Your task to perform on an android device: Open my contact list Image 0: 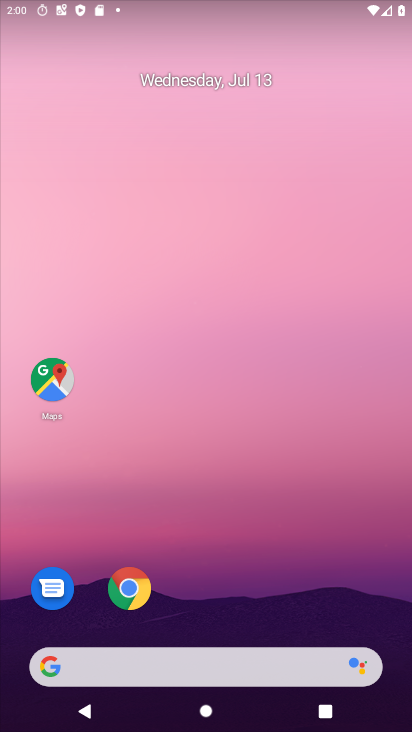
Step 0: drag from (218, 587) to (244, 308)
Your task to perform on an android device: Open my contact list Image 1: 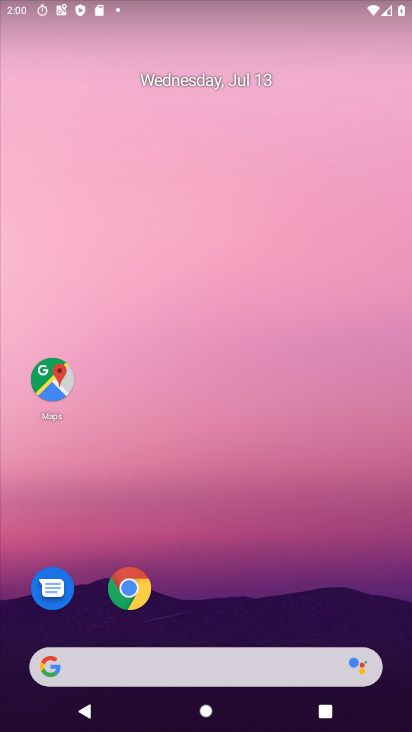
Step 1: drag from (234, 587) to (280, 224)
Your task to perform on an android device: Open my contact list Image 2: 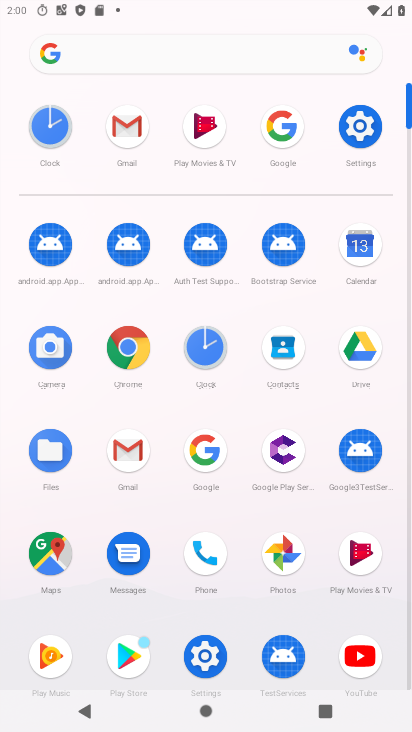
Step 2: click (279, 360)
Your task to perform on an android device: Open my contact list Image 3: 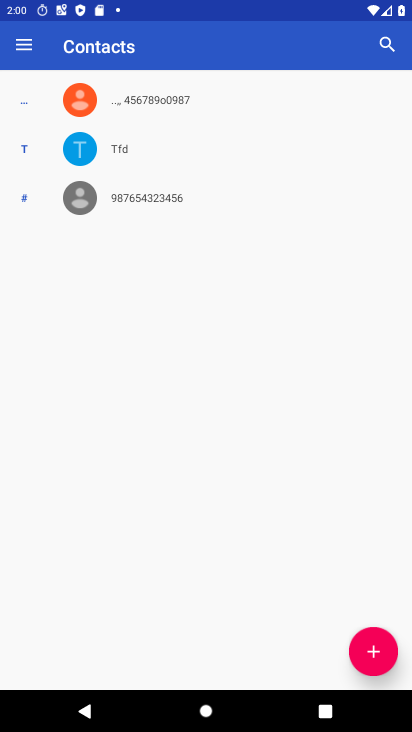
Step 3: task complete